Your task to perform on an android device: Open the map Image 0: 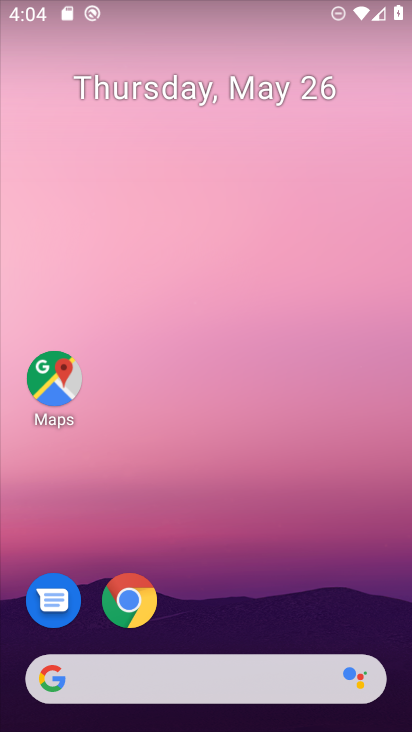
Step 0: drag from (238, 522) to (365, 26)
Your task to perform on an android device: Open the map Image 1: 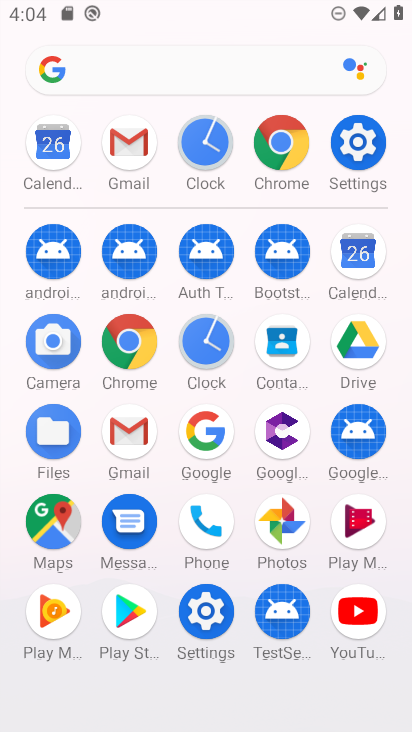
Step 1: click (53, 522)
Your task to perform on an android device: Open the map Image 2: 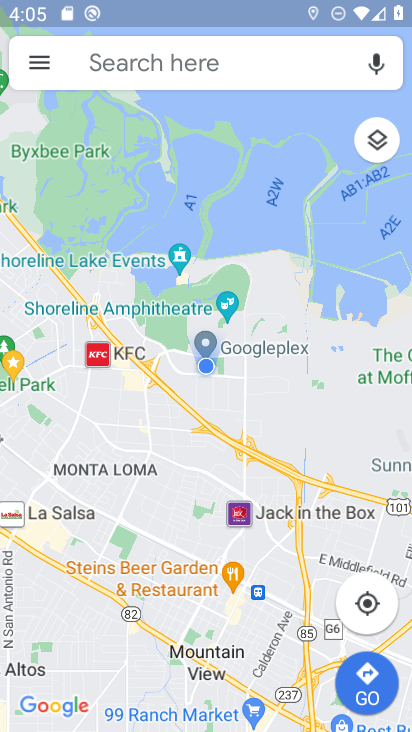
Step 2: task complete